Your task to perform on an android device: turn on showing notifications on the lock screen Image 0: 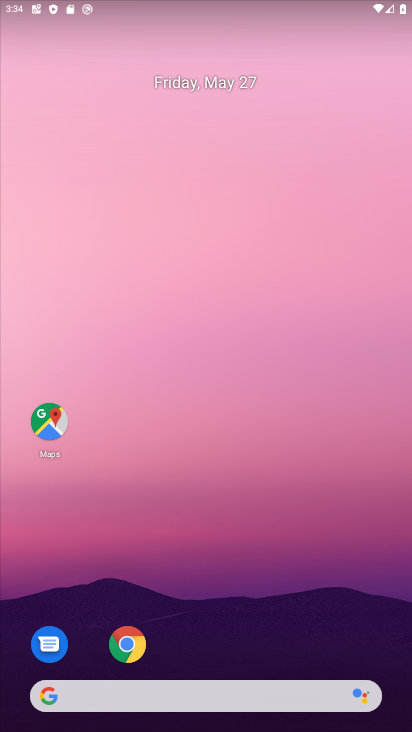
Step 0: drag from (292, 398) to (207, 62)
Your task to perform on an android device: turn on showing notifications on the lock screen Image 1: 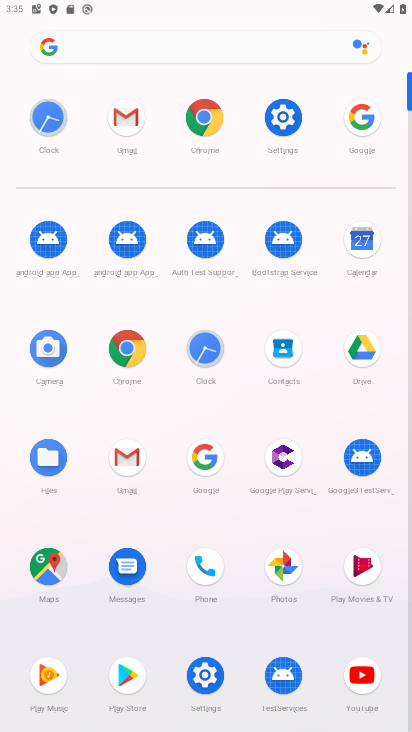
Step 1: click (277, 111)
Your task to perform on an android device: turn on showing notifications on the lock screen Image 2: 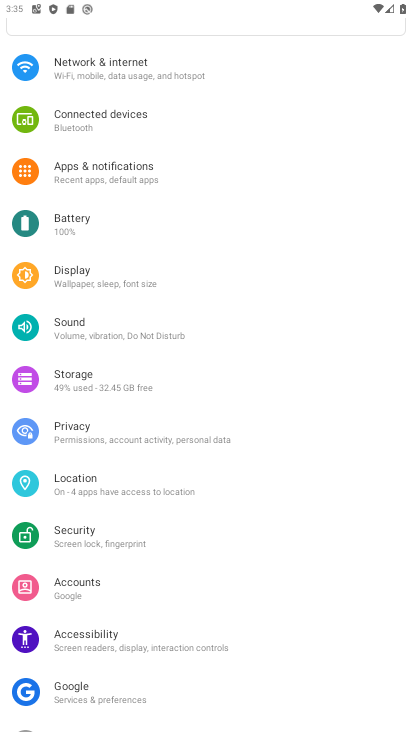
Step 2: click (158, 176)
Your task to perform on an android device: turn on showing notifications on the lock screen Image 3: 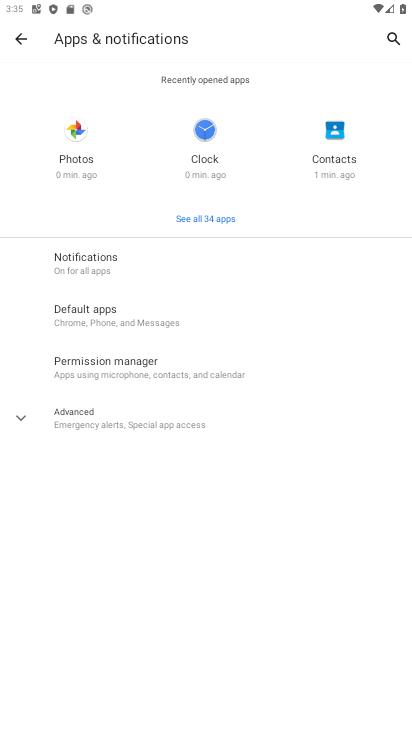
Step 3: click (152, 270)
Your task to perform on an android device: turn on showing notifications on the lock screen Image 4: 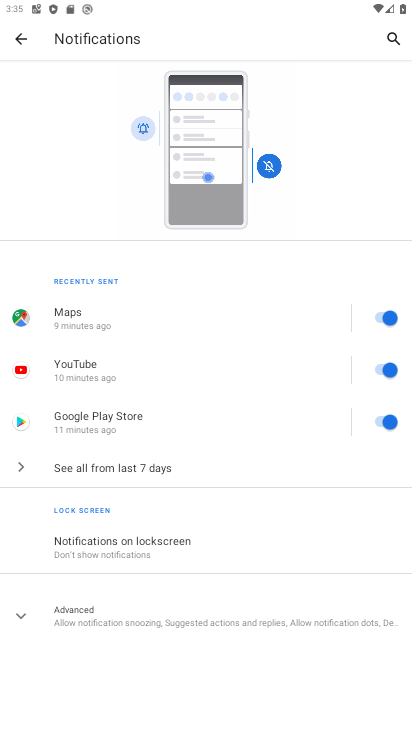
Step 4: click (198, 599)
Your task to perform on an android device: turn on showing notifications on the lock screen Image 5: 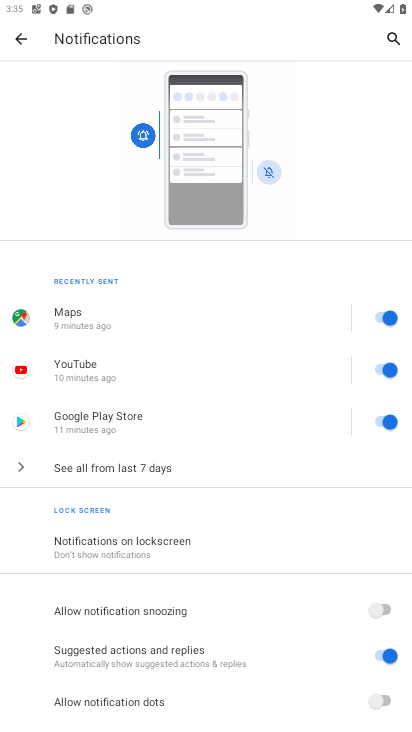
Step 5: click (379, 697)
Your task to perform on an android device: turn on showing notifications on the lock screen Image 6: 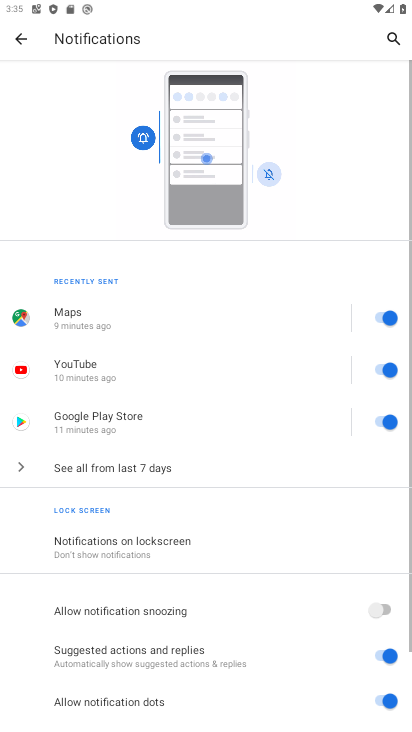
Step 6: task complete